Your task to perform on an android device: Open Google Image 0: 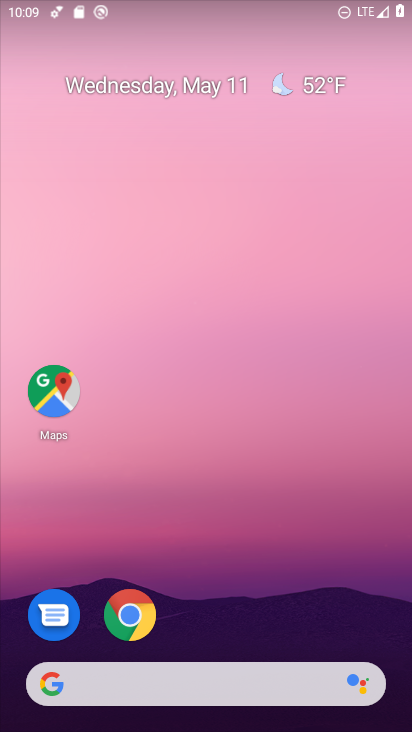
Step 0: drag from (262, 588) to (248, 119)
Your task to perform on an android device: Open Google Image 1: 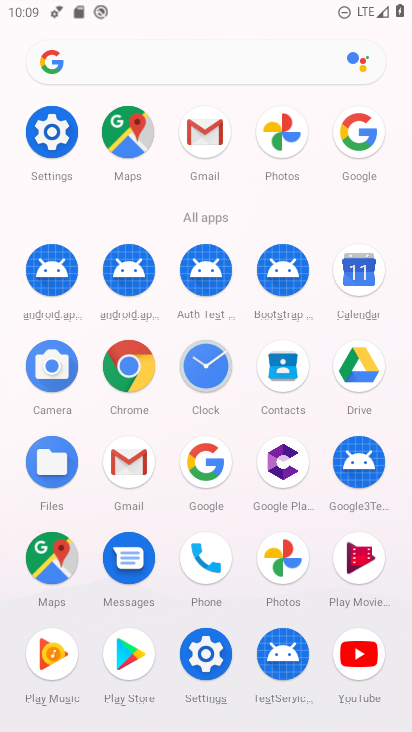
Step 1: click (356, 126)
Your task to perform on an android device: Open Google Image 2: 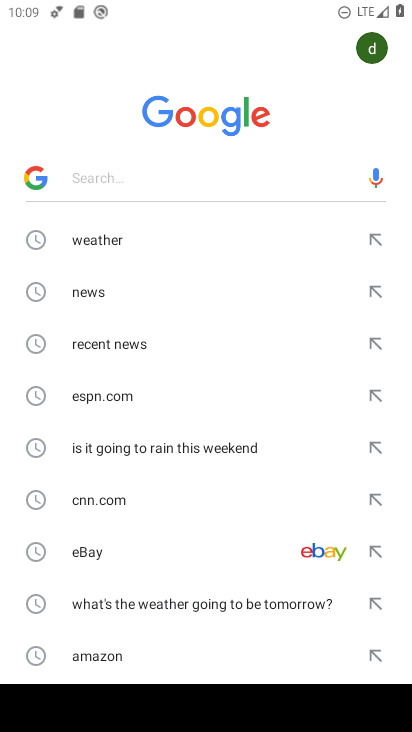
Step 2: task complete